Your task to perform on an android device: Go to notification settings Image 0: 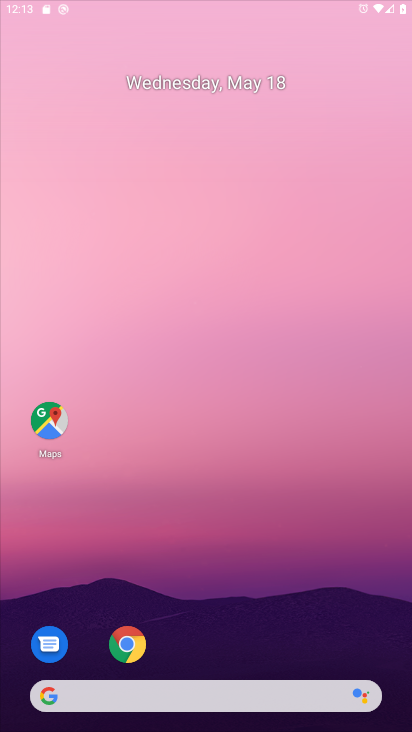
Step 0: press home button
Your task to perform on an android device: Go to notification settings Image 1: 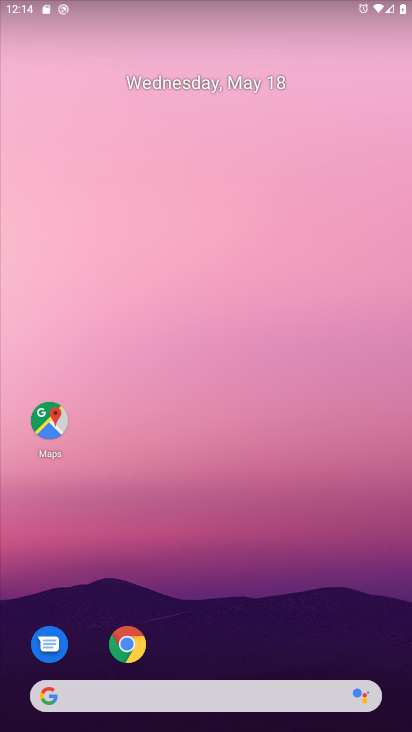
Step 1: drag from (212, 616) to (248, 66)
Your task to perform on an android device: Go to notification settings Image 2: 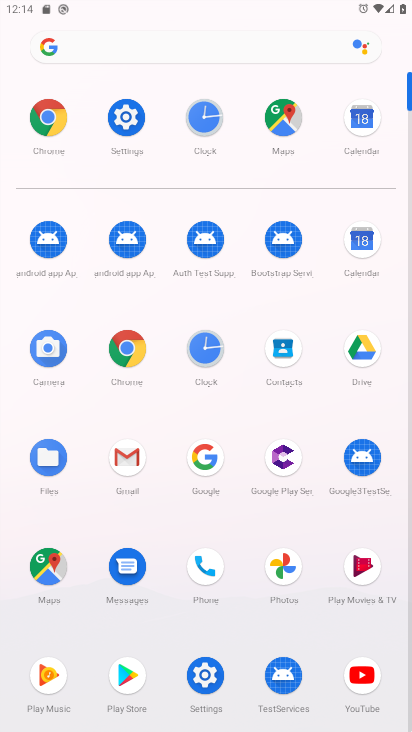
Step 2: click (121, 122)
Your task to perform on an android device: Go to notification settings Image 3: 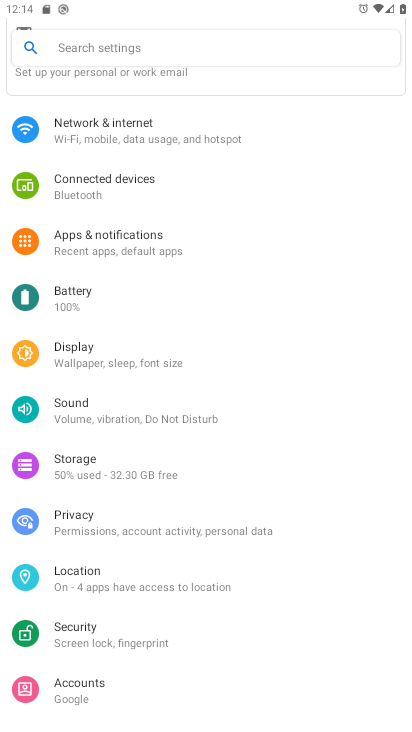
Step 3: click (127, 248)
Your task to perform on an android device: Go to notification settings Image 4: 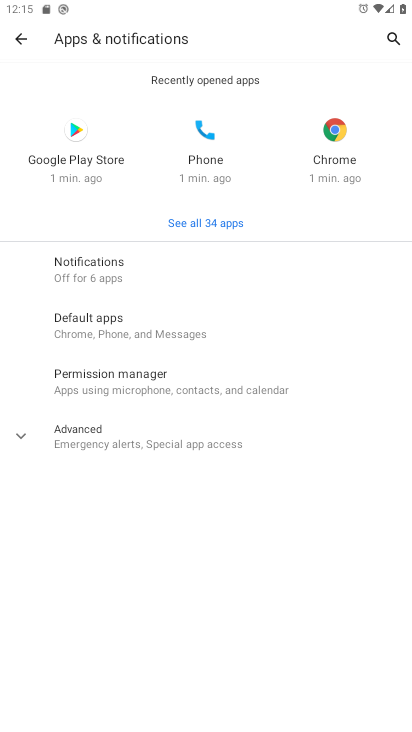
Step 4: click (148, 266)
Your task to perform on an android device: Go to notification settings Image 5: 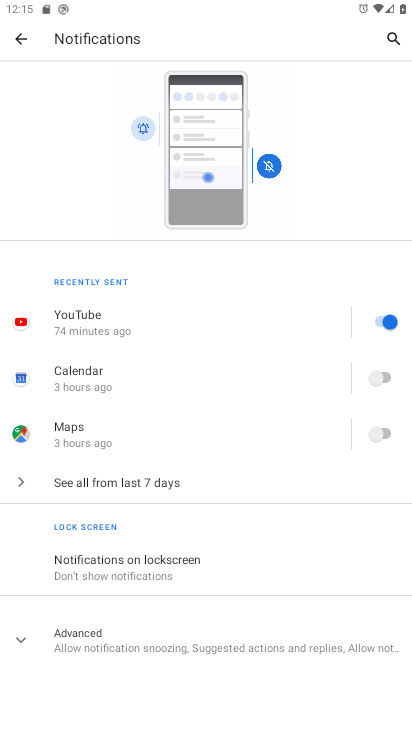
Step 5: click (123, 632)
Your task to perform on an android device: Go to notification settings Image 6: 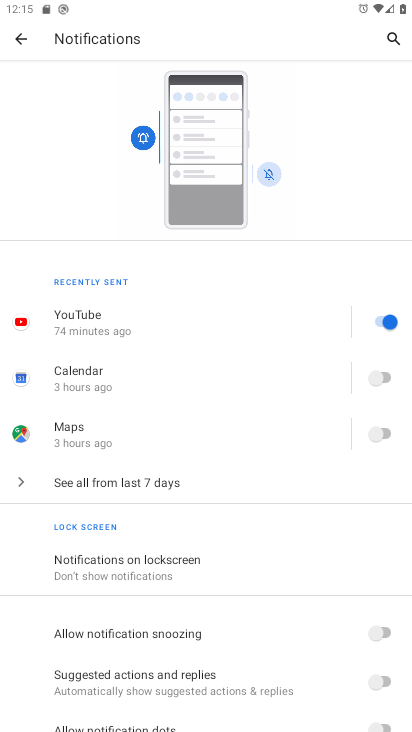
Step 6: click (385, 316)
Your task to perform on an android device: Go to notification settings Image 7: 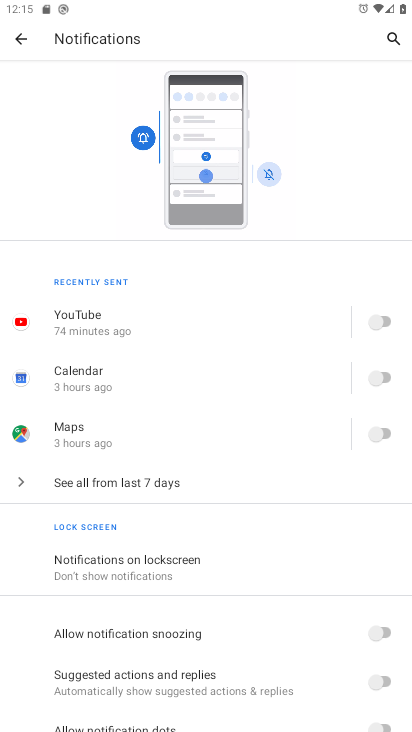
Step 7: task complete